Your task to perform on an android device: Open the calendar app, open the side menu, and click the "Day" option Image 0: 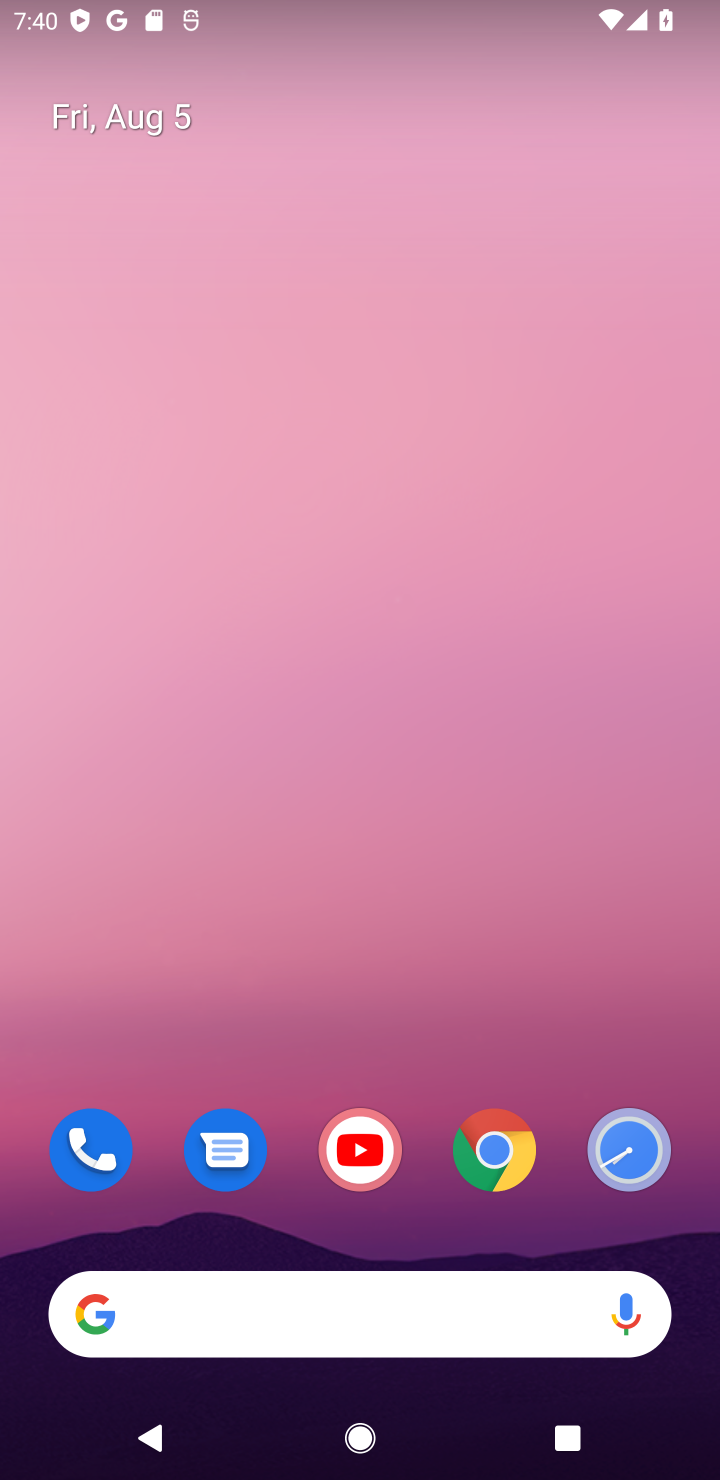
Step 0: press home button
Your task to perform on an android device: Open the calendar app, open the side menu, and click the "Day" option Image 1: 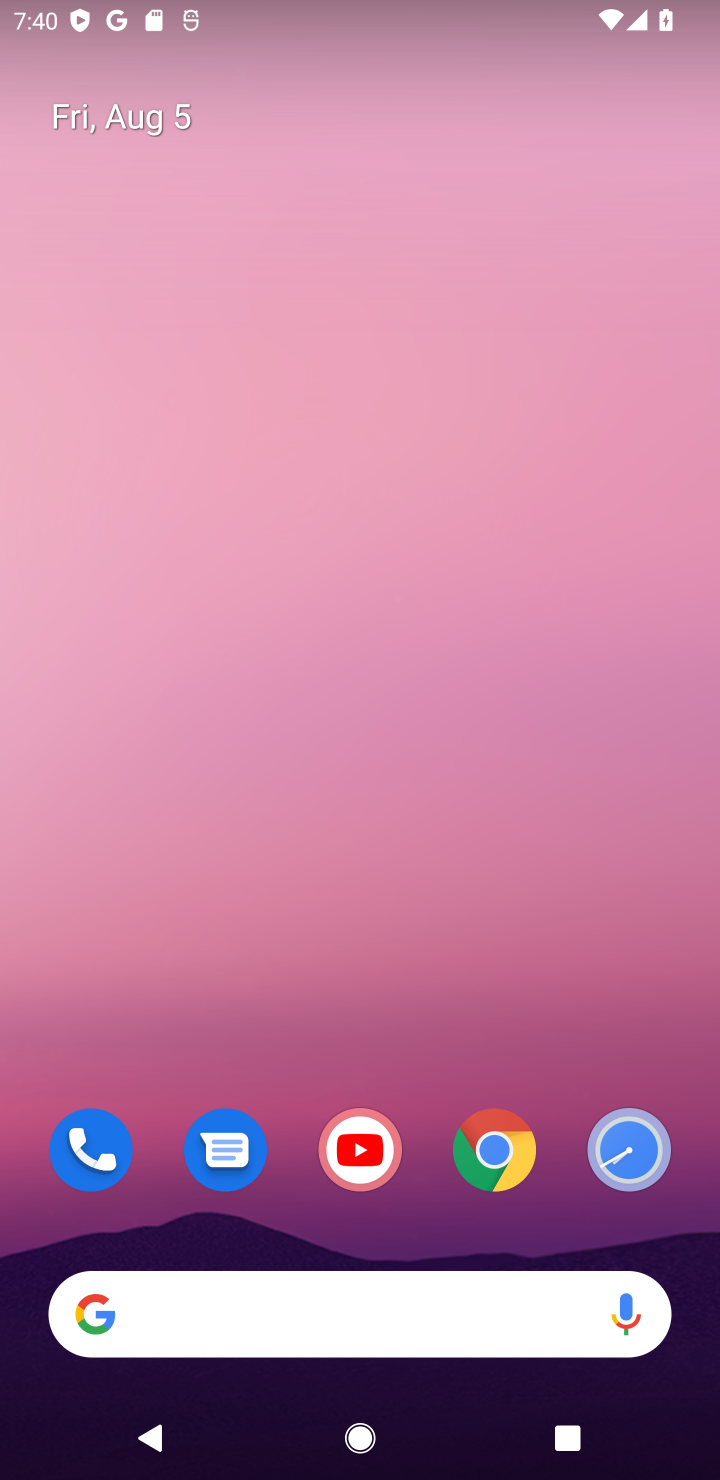
Step 1: drag from (405, 1086) to (393, 442)
Your task to perform on an android device: Open the calendar app, open the side menu, and click the "Day" option Image 2: 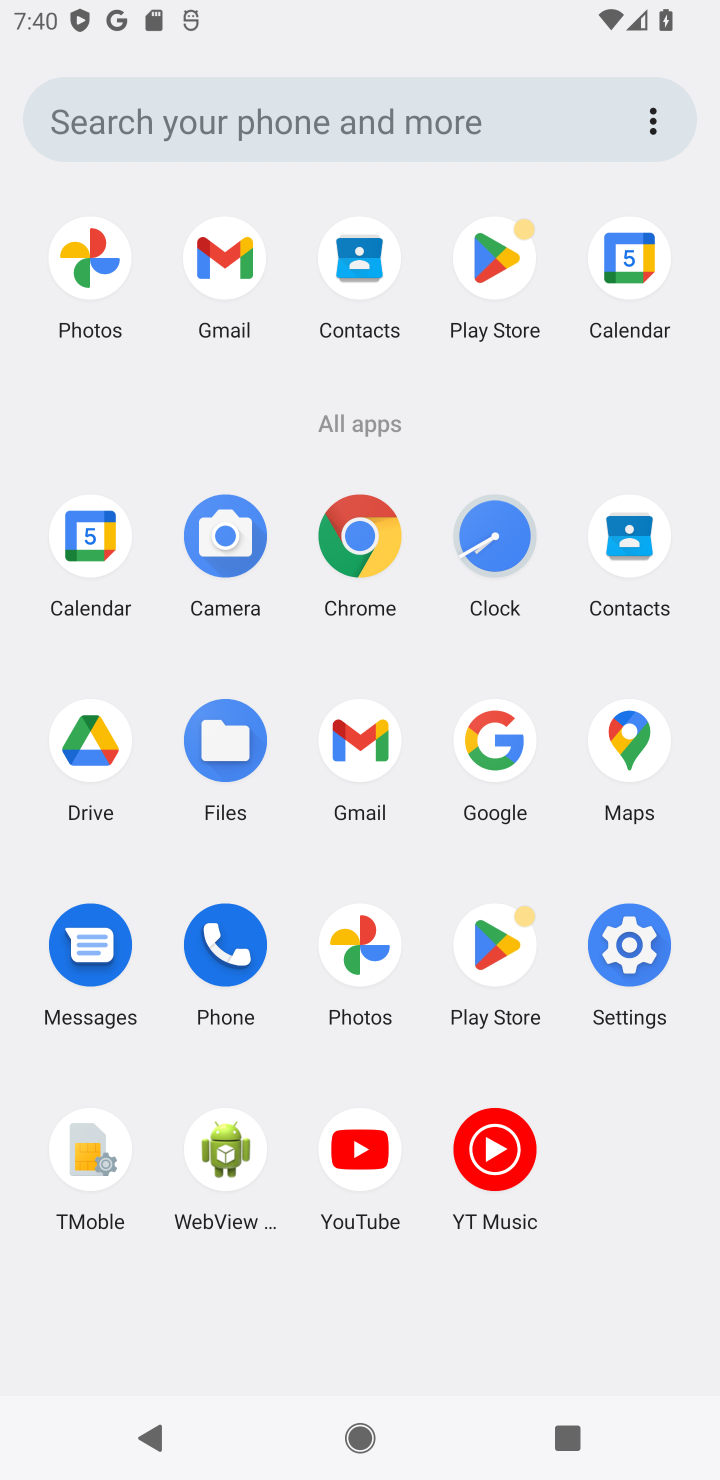
Step 2: click (90, 565)
Your task to perform on an android device: Open the calendar app, open the side menu, and click the "Day" option Image 3: 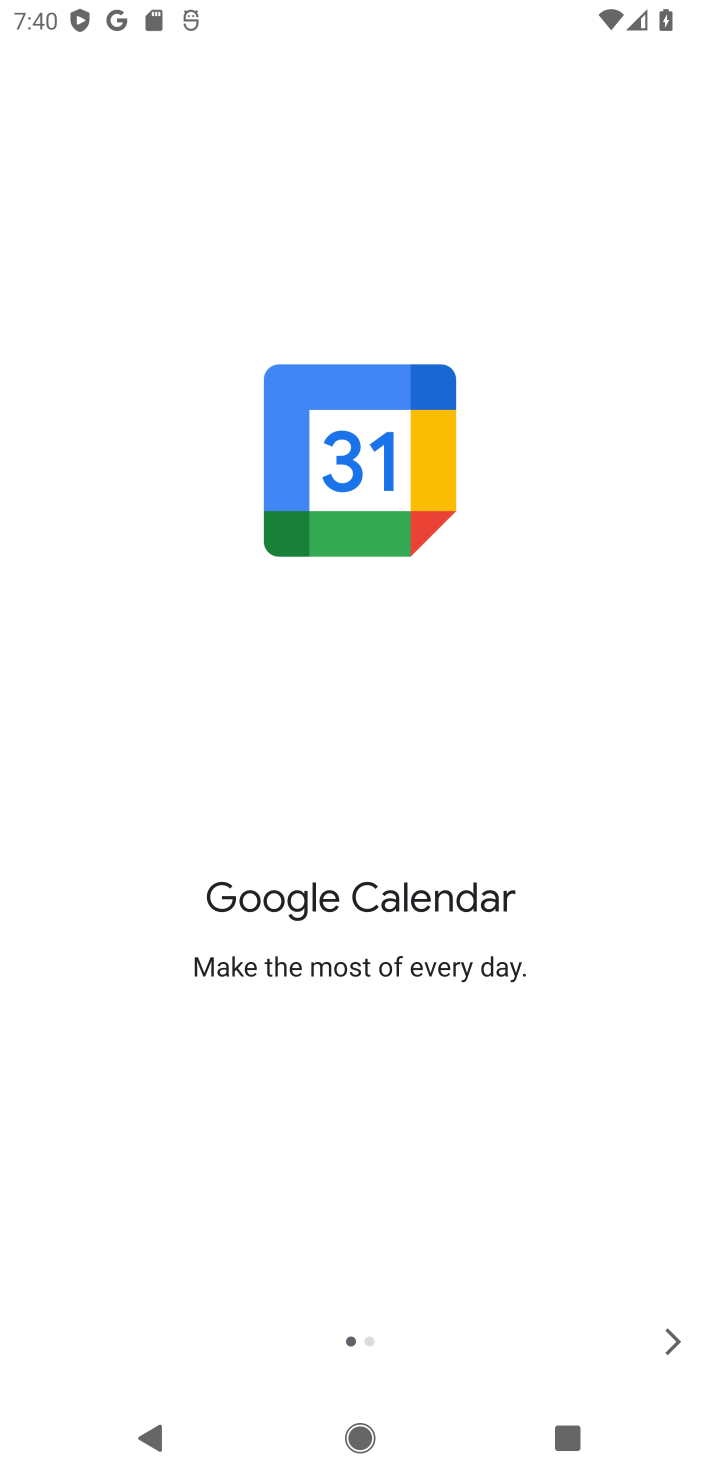
Step 3: click (673, 1357)
Your task to perform on an android device: Open the calendar app, open the side menu, and click the "Day" option Image 4: 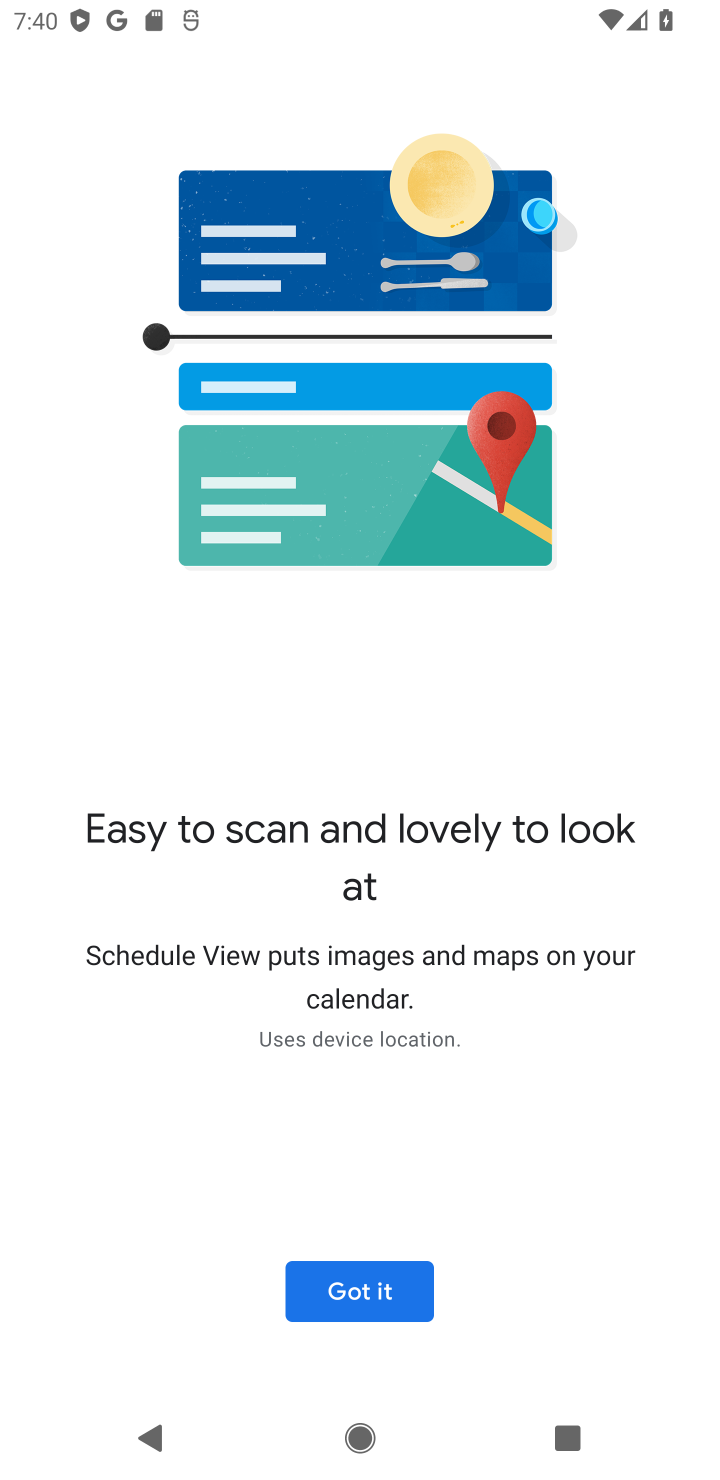
Step 4: click (331, 1289)
Your task to perform on an android device: Open the calendar app, open the side menu, and click the "Day" option Image 5: 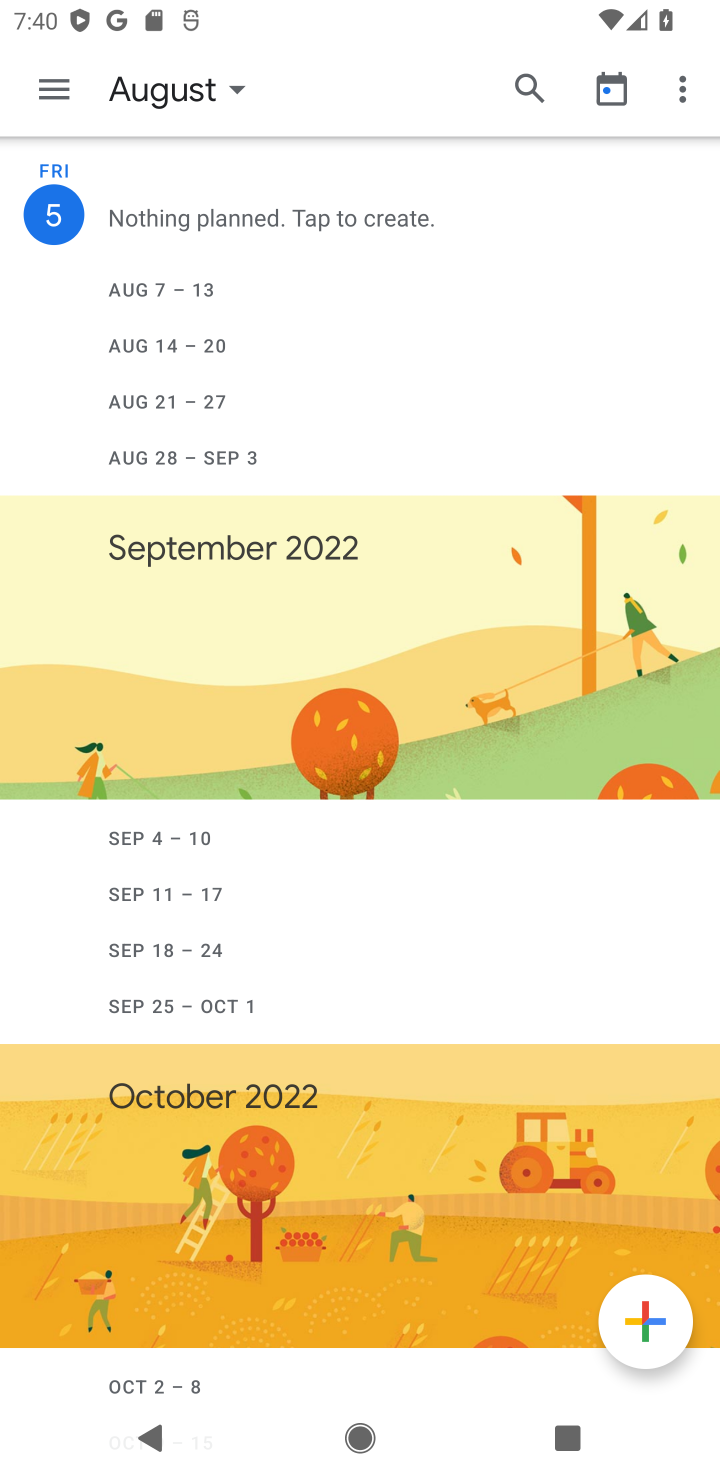
Step 5: click (52, 81)
Your task to perform on an android device: Open the calendar app, open the side menu, and click the "Day" option Image 6: 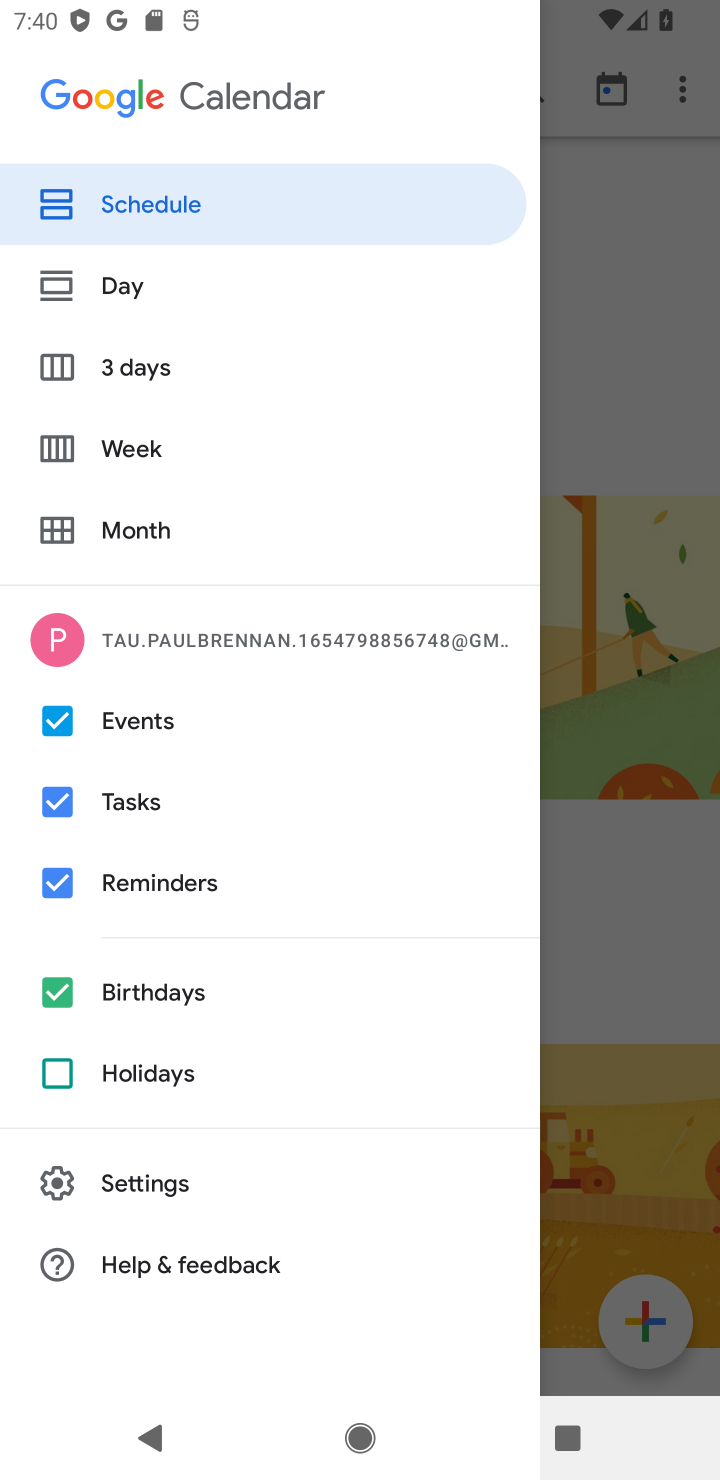
Step 6: click (103, 284)
Your task to perform on an android device: Open the calendar app, open the side menu, and click the "Day" option Image 7: 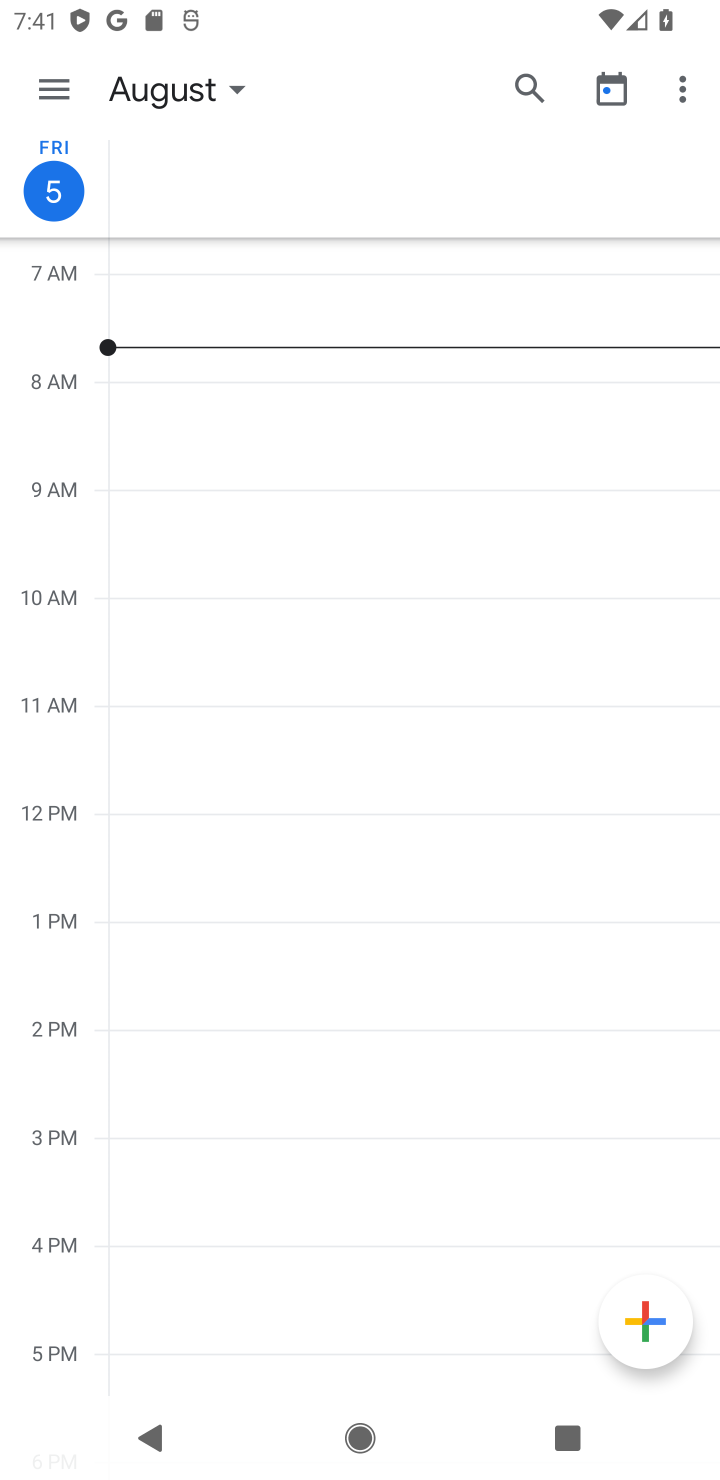
Step 7: task complete